Your task to perform on an android device: Open accessibility settings Image 0: 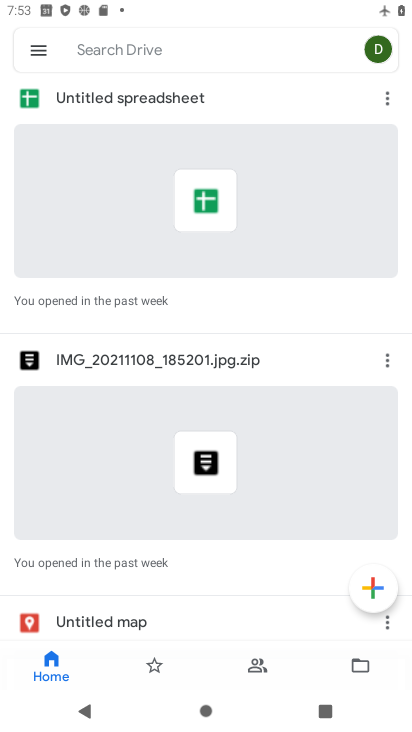
Step 0: press home button
Your task to perform on an android device: Open accessibility settings Image 1: 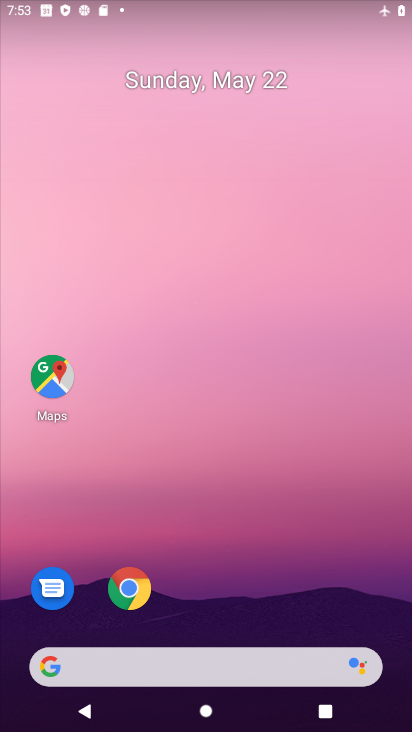
Step 1: drag from (262, 564) to (224, 142)
Your task to perform on an android device: Open accessibility settings Image 2: 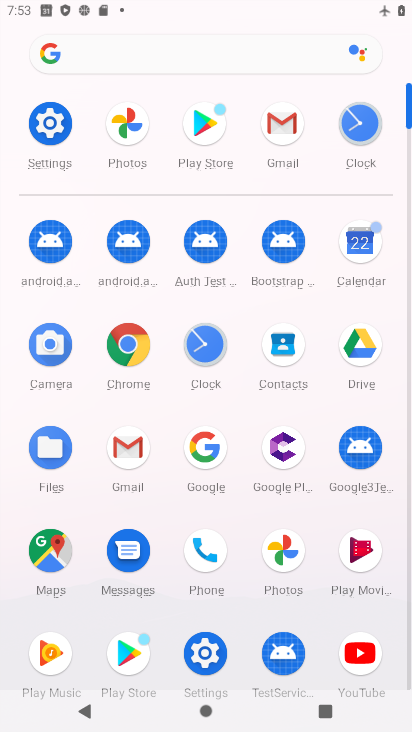
Step 2: click (46, 118)
Your task to perform on an android device: Open accessibility settings Image 3: 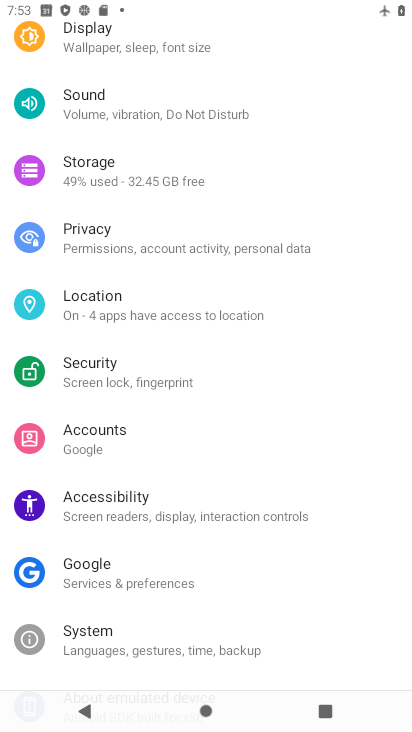
Step 3: click (98, 490)
Your task to perform on an android device: Open accessibility settings Image 4: 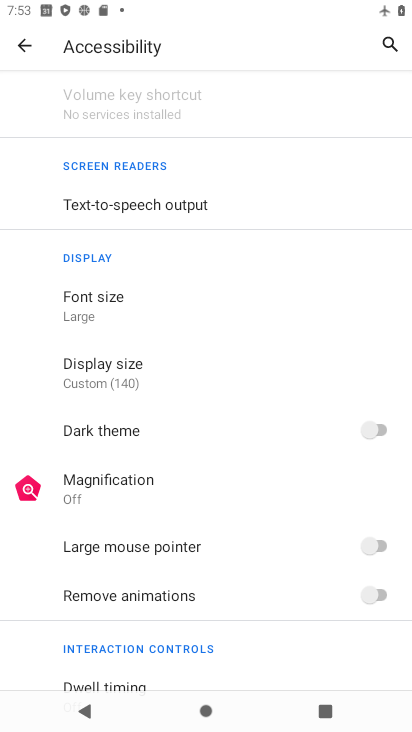
Step 4: task complete